Your task to perform on an android device: set the stopwatch Image 0: 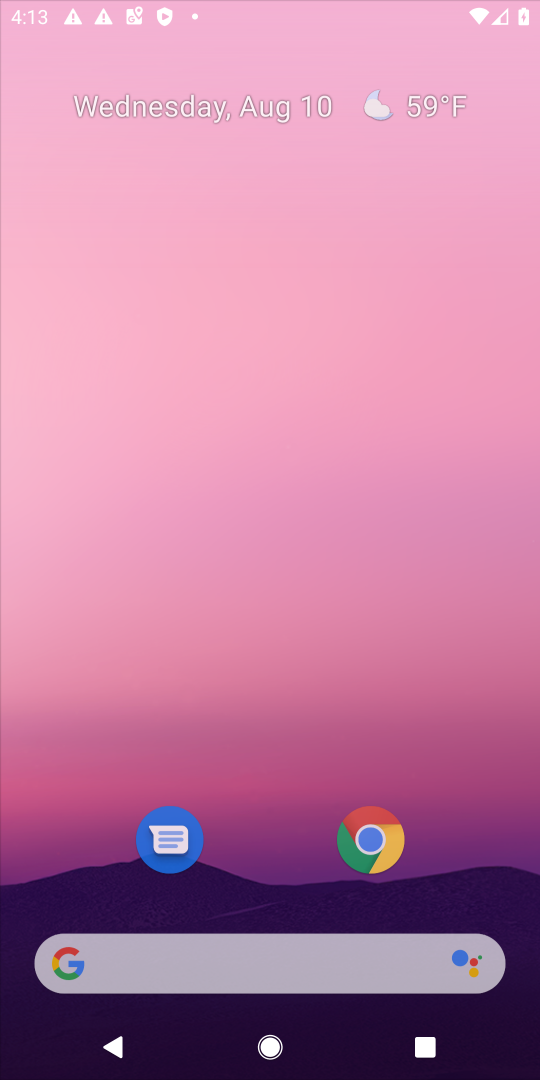
Step 0: click (165, 51)
Your task to perform on an android device: set the stopwatch Image 1: 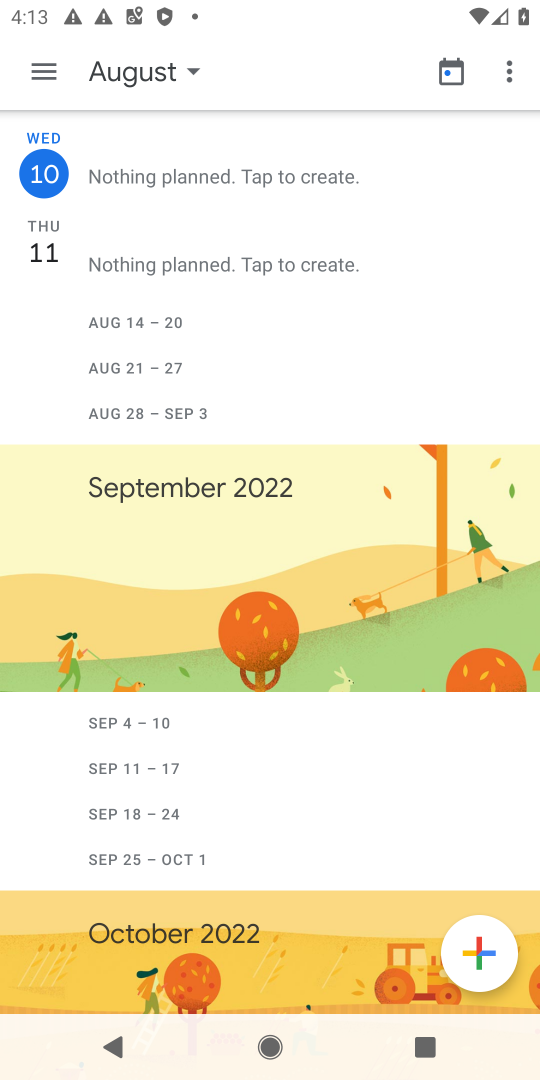
Step 1: press home button
Your task to perform on an android device: set the stopwatch Image 2: 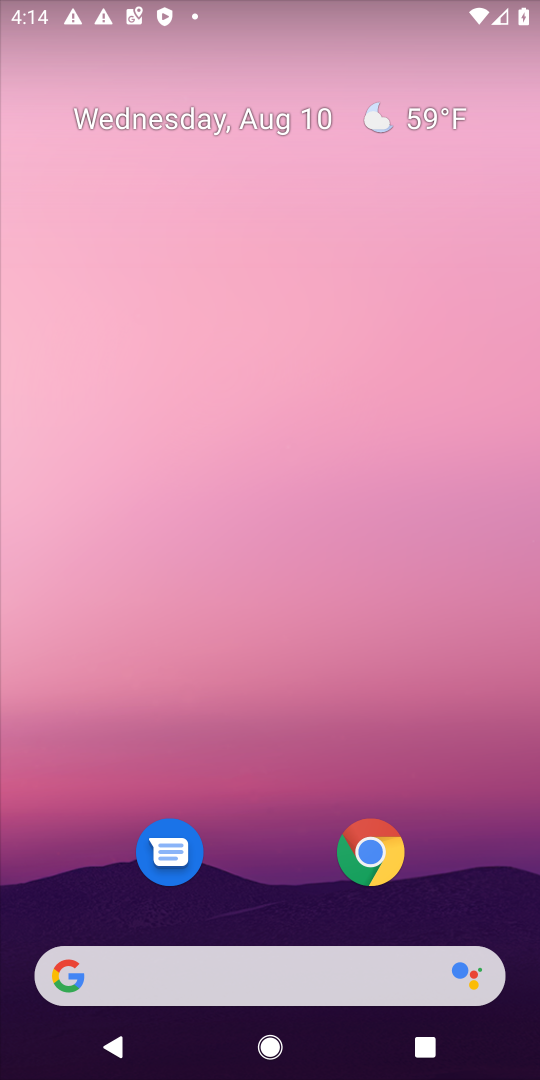
Step 2: drag from (347, 767) to (167, 171)
Your task to perform on an android device: set the stopwatch Image 3: 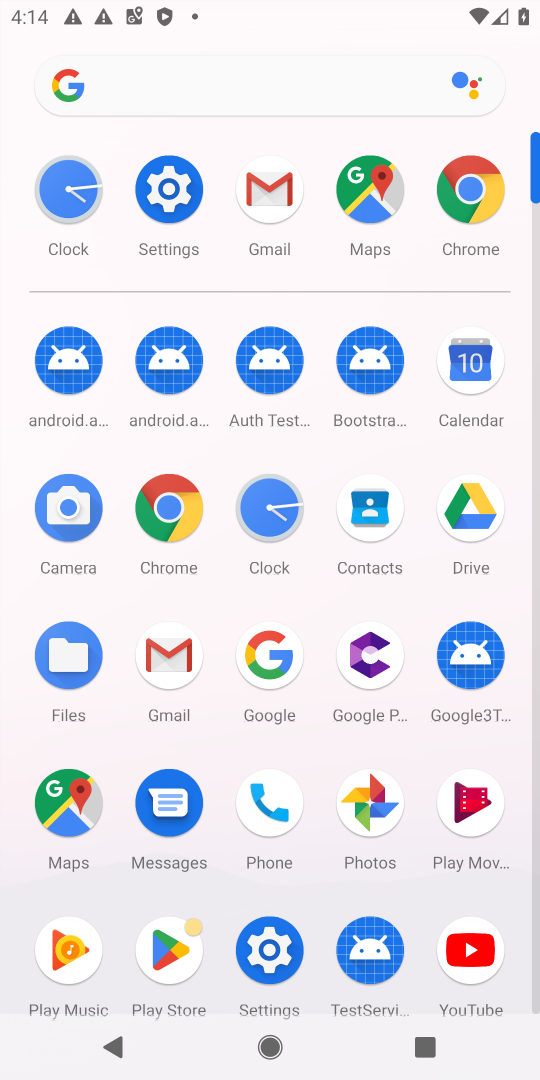
Step 3: click (288, 494)
Your task to perform on an android device: set the stopwatch Image 4: 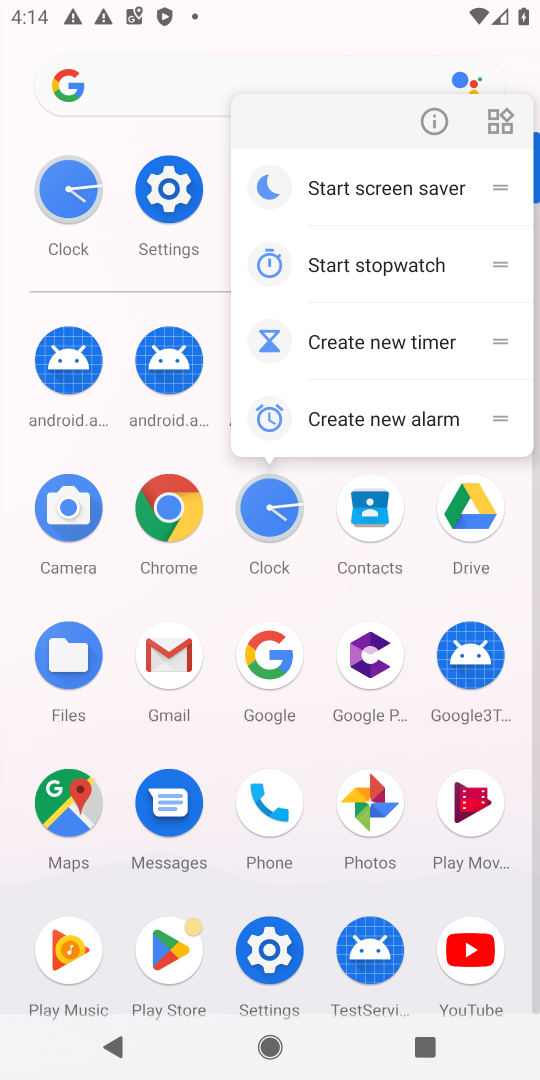
Step 4: click (279, 485)
Your task to perform on an android device: set the stopwatch Image 5: 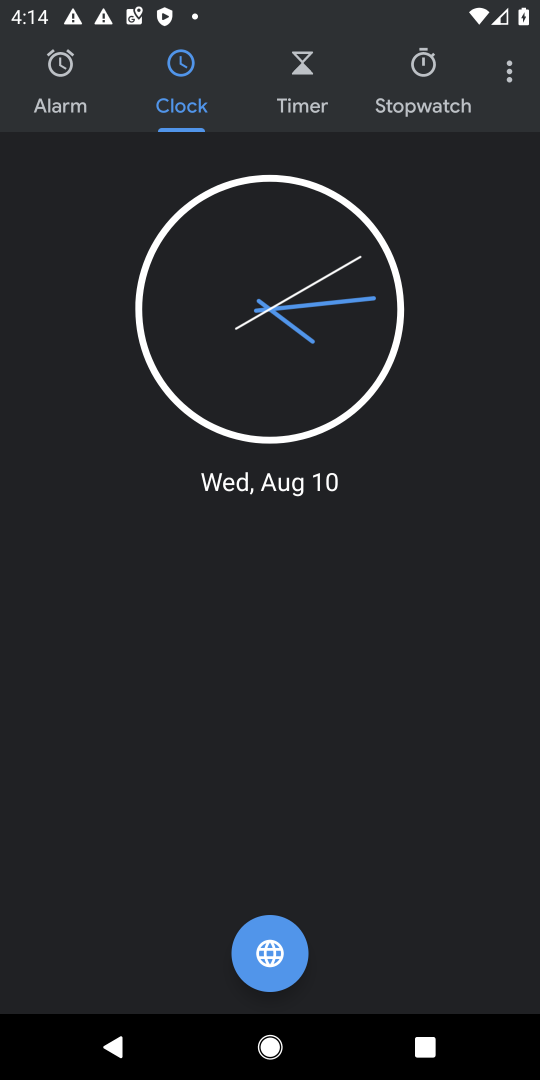
Step 5: click (427, 91)
Your task to perform on an android device: set the stopwatch Image 6: 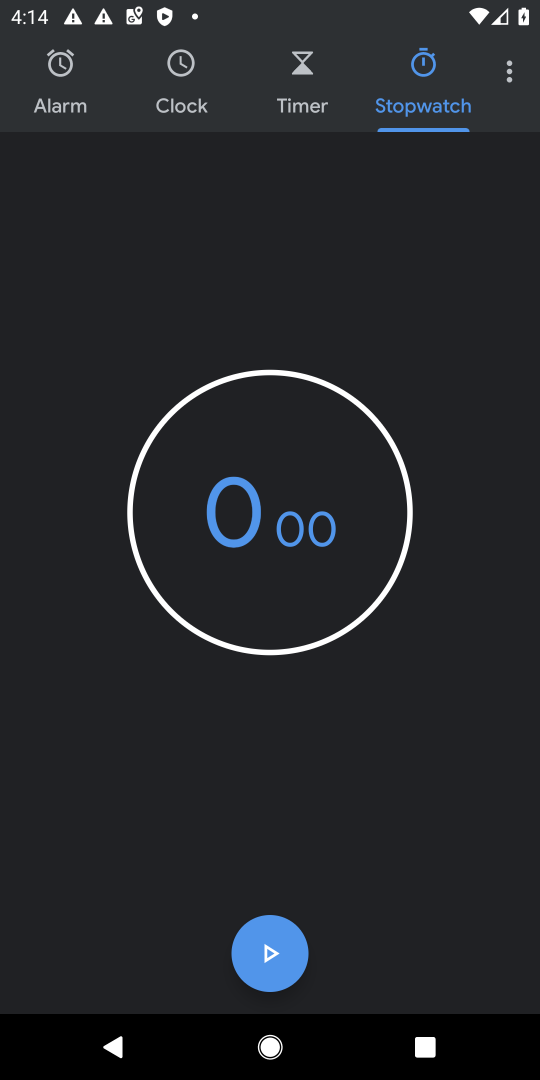
Step 6: click (270, 959)
Your task to perform on an android device: set the stopwatch Image 7: 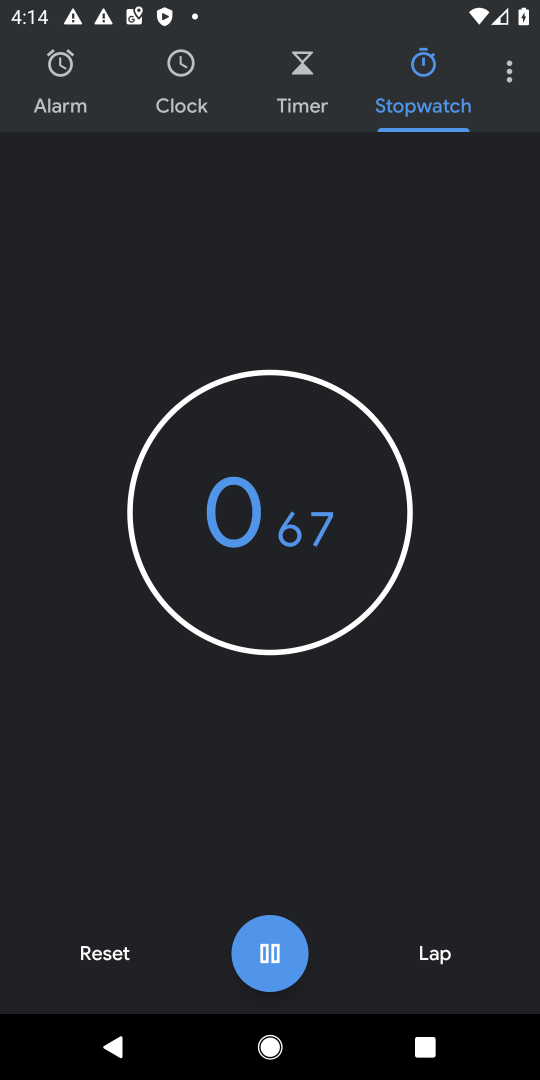
Step 7: click (269, 943)
Your task to perform on an android device: set the stopwatch Image 8: 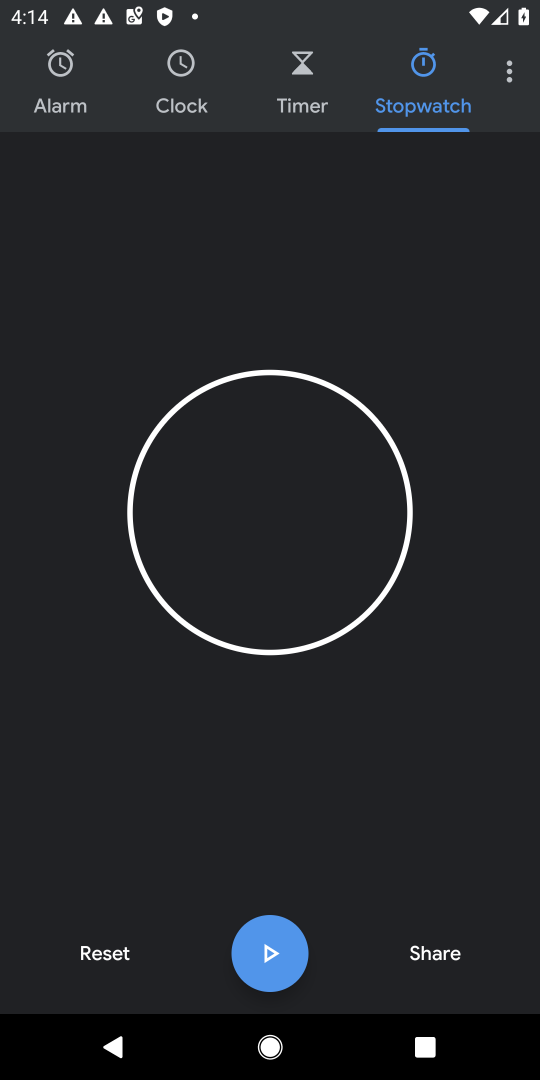
Step 8: task complete